Your task to perform on an android device: Go to network settings Image 0: 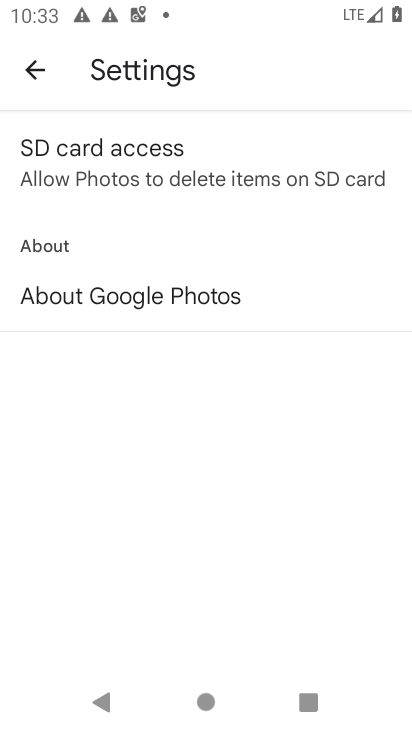
Step 0: press home button
Your task to perform on an android device: Go to network settings Image 1: 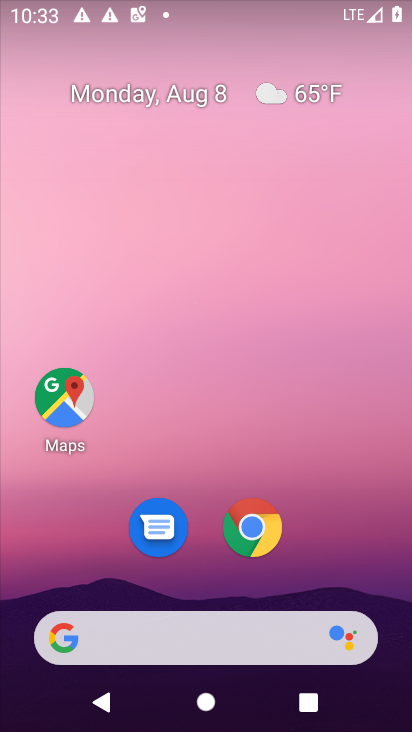
Step 1: drag from (401, 701) to (408, 436)
Your task to perform on an android device: Go to network settings Image 2: 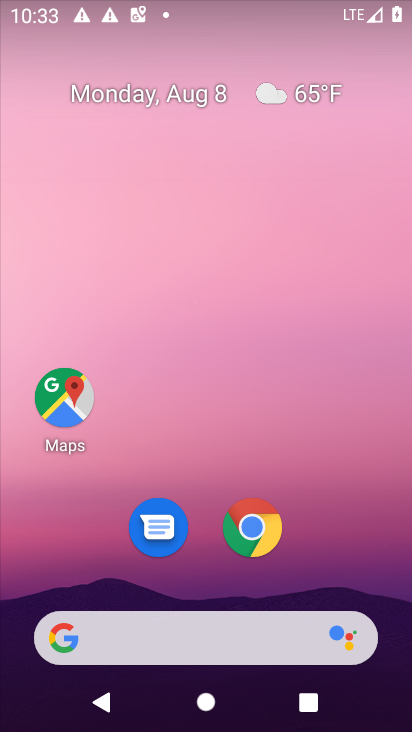
Step 2: drag from (401, 706) to (355, 220)
Your task to perform on an android device: Go to network settings Image 3: 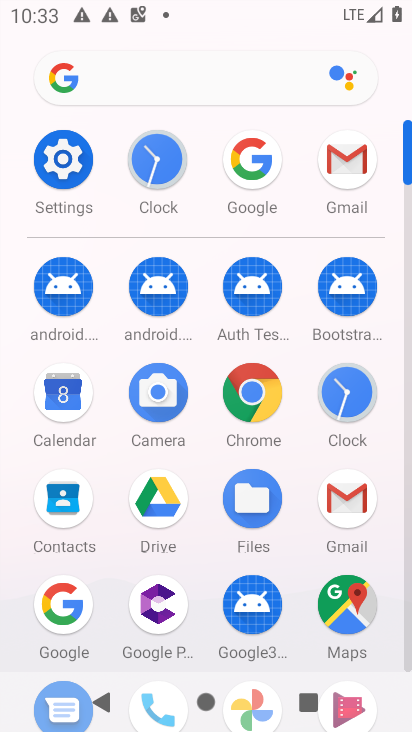
Step 3: click (71, 157)
Your task to perform on an android device: Go to network settings Image 4: 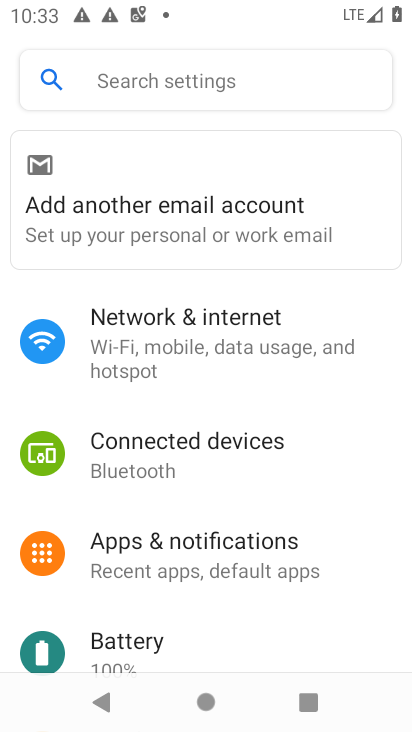
Step 4: click (142, 322)
Your task to perform on an android device: Go to network settings Image 5: 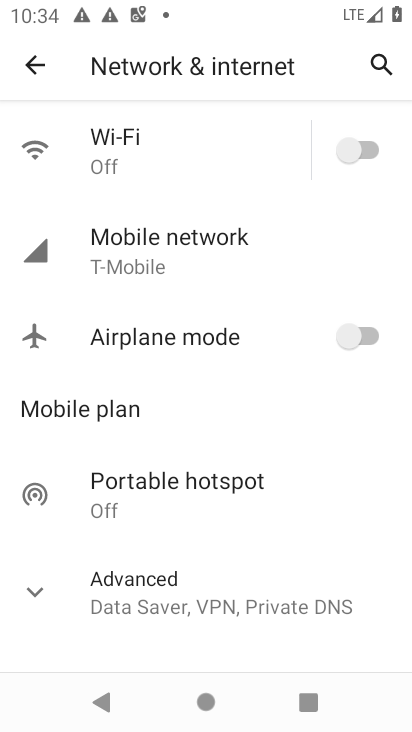
Step 5: click (136, 246)
Your task to perform on an android device: Go to network settings Image 6: 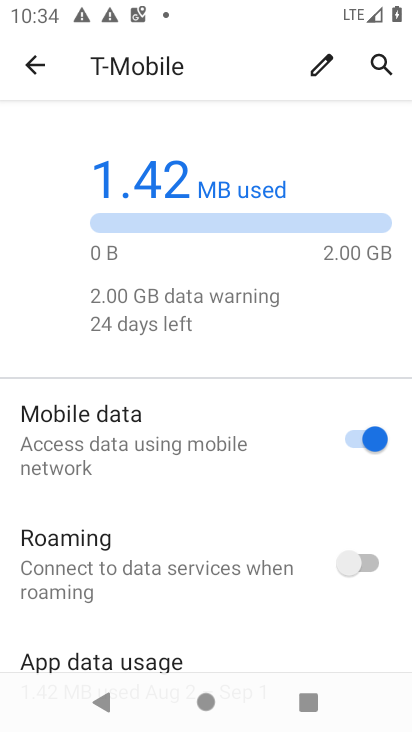
Step 6: task complete